Your task to perform on an android device: Open Chrome and go to settings Image 0: 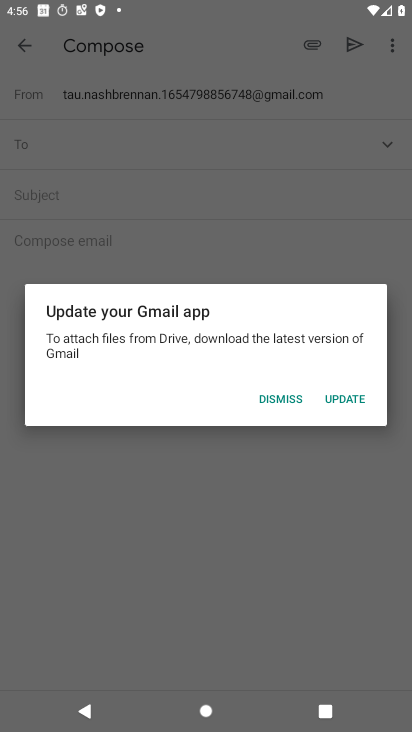
Step 0: press home button
Your task to perform on an android device: Open Chrome and go to settings Image 1: 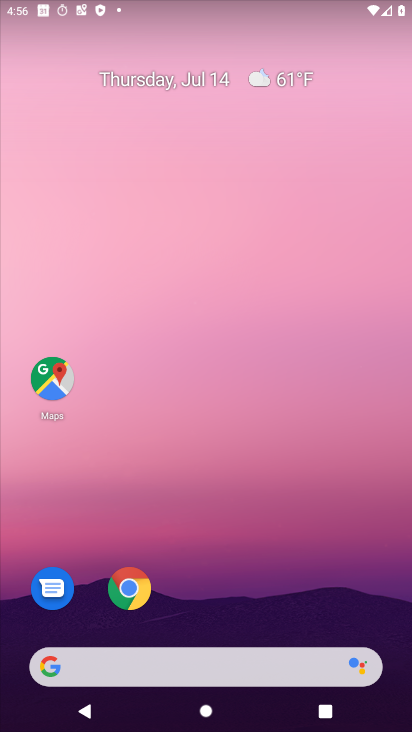
Step 1: click (129, 589)
Your task to perform on an android device: Open Chrome and go to settings Image 2: 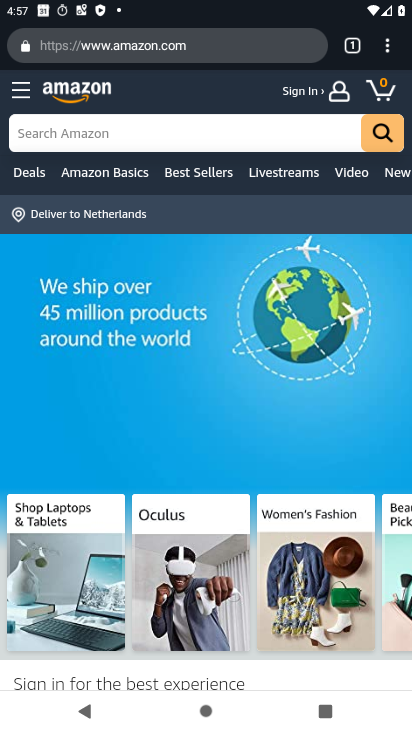
Step 2: click (388, 51)
Your task to perform on an android device: Open Chrome and go to settings Image 3: 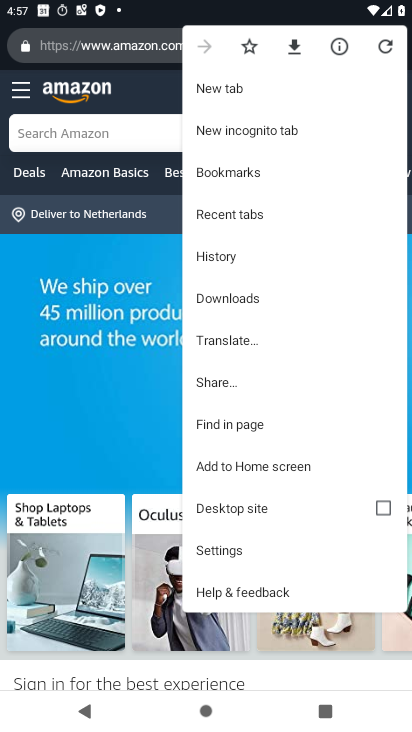
Step 3: click (220, 547)
Your task to perform on an android device: Open Chrome and go to settings Image 4: 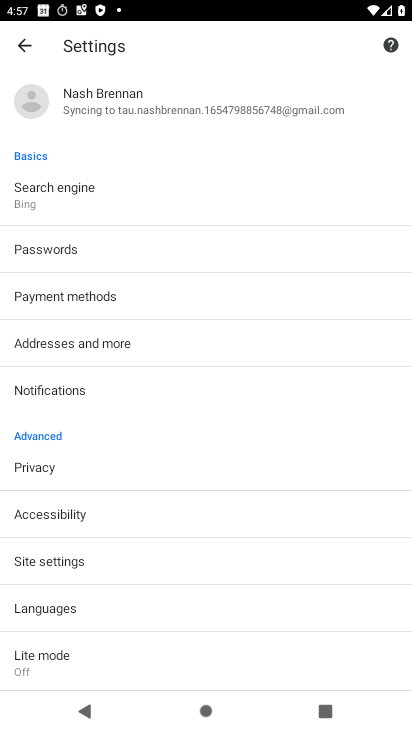
Step 4: task complete